Your task to perform on an android device: open app "Flipkart Online Shopping App" Image 0: 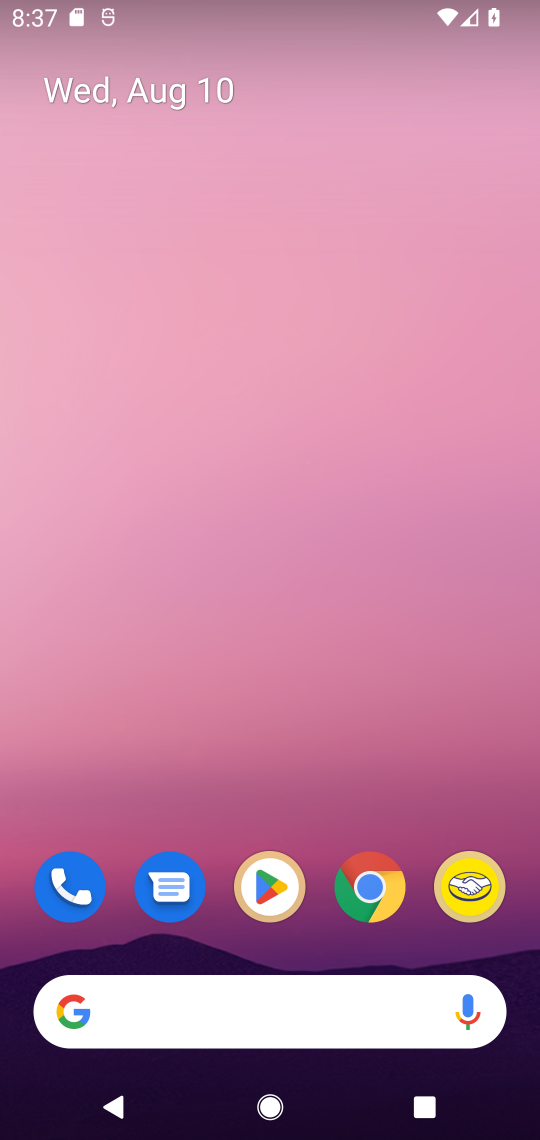
Step 0: drag from (311, 967) to (313, 32)
Your task to perform on an android device: open app "Flipkart Online Shopping App" Image 1: 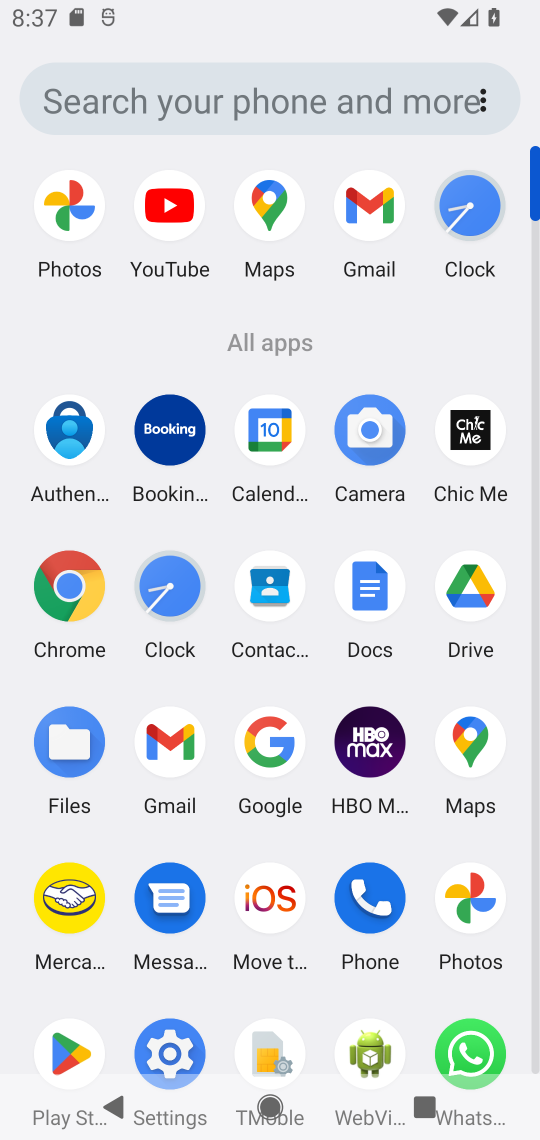
Step 1: click (47, 1059)
Your task to perform on an android device: open app "Flipkart Online Shopping App" Image 2: 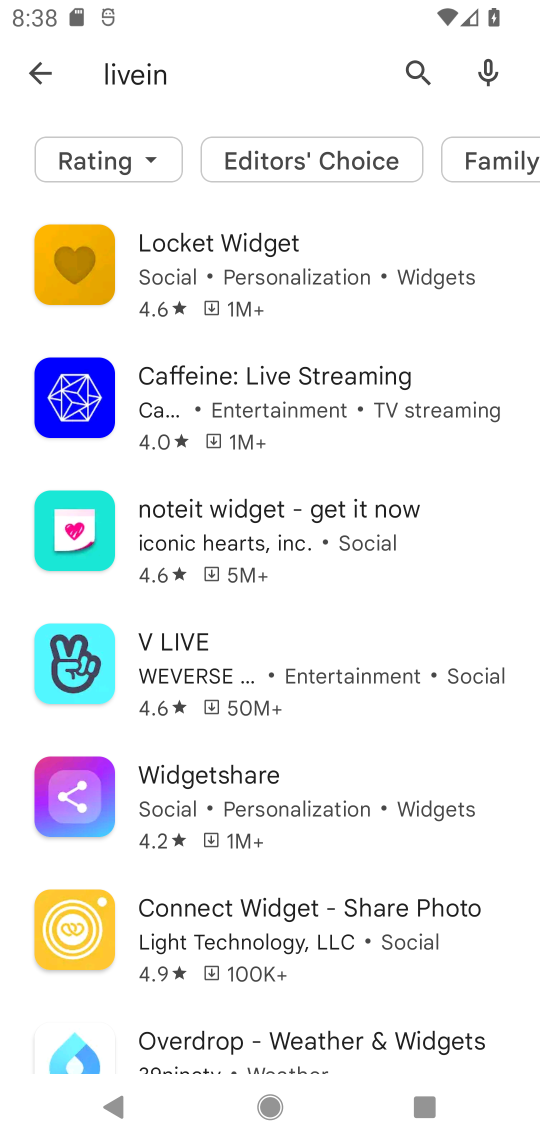
Step 2: click (401, 66)
Your task to perform on an android device: open app "Flipkart Online Shopping App" Image 3: 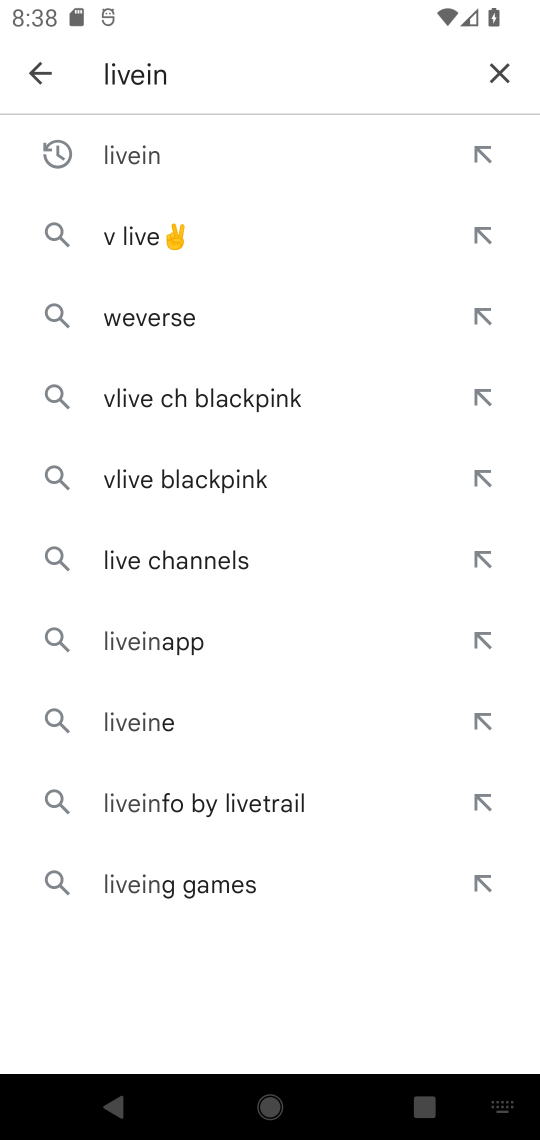
Step 3: click (486, 87)
Your task to perform on an android device: open app "Flipkart Online Shopping App" Image 4: 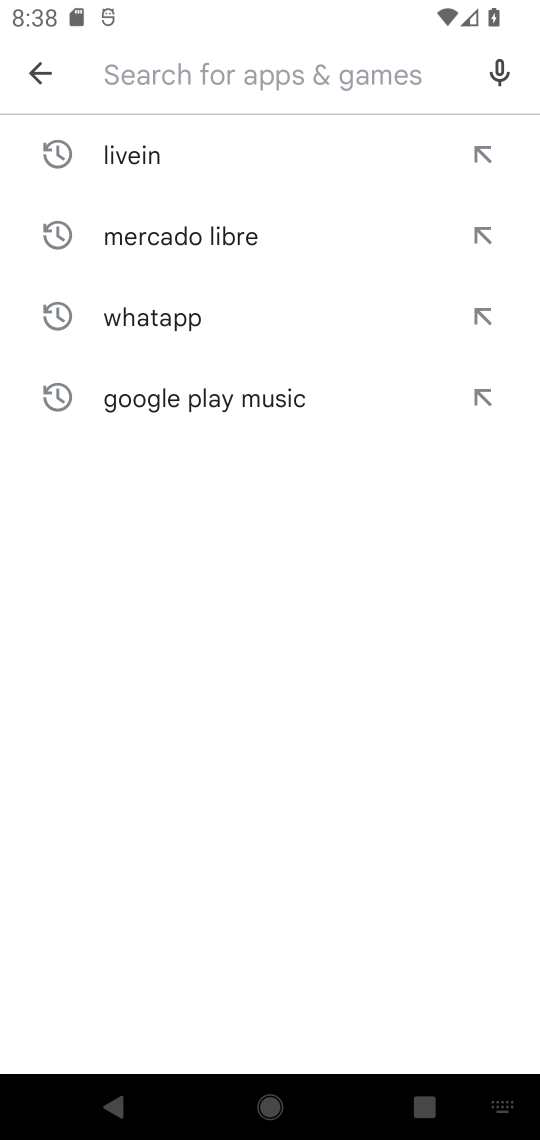
Step 4: type "flipakart"
Your task to perform on an android device: open app "Flipkart Online Shopping App" Image 5: 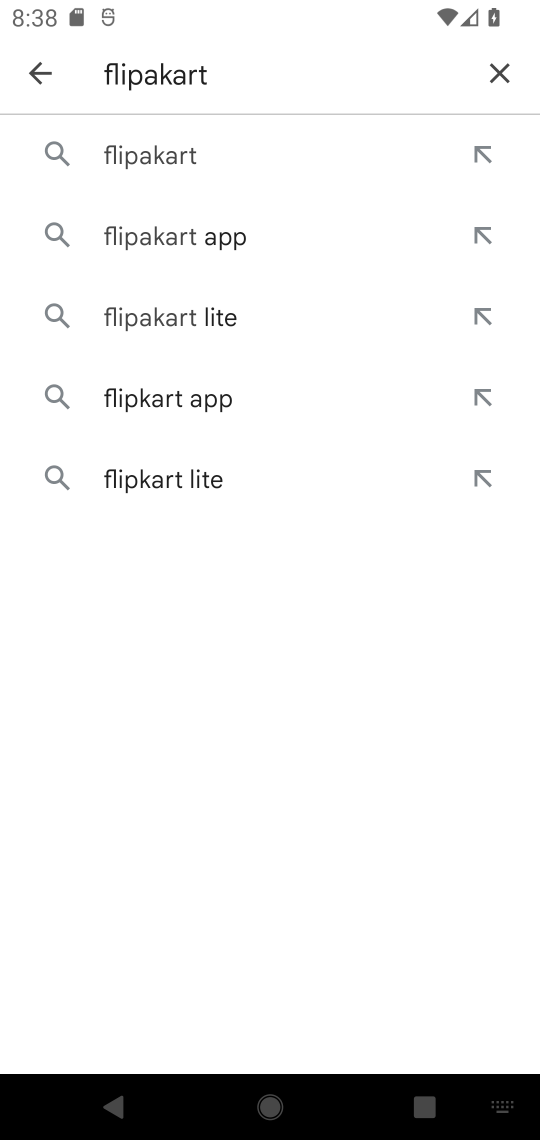
Step 5: click (270, 165)
Your task to perform on an android device: open app "Flipkart Online Shopping App" Image 6: 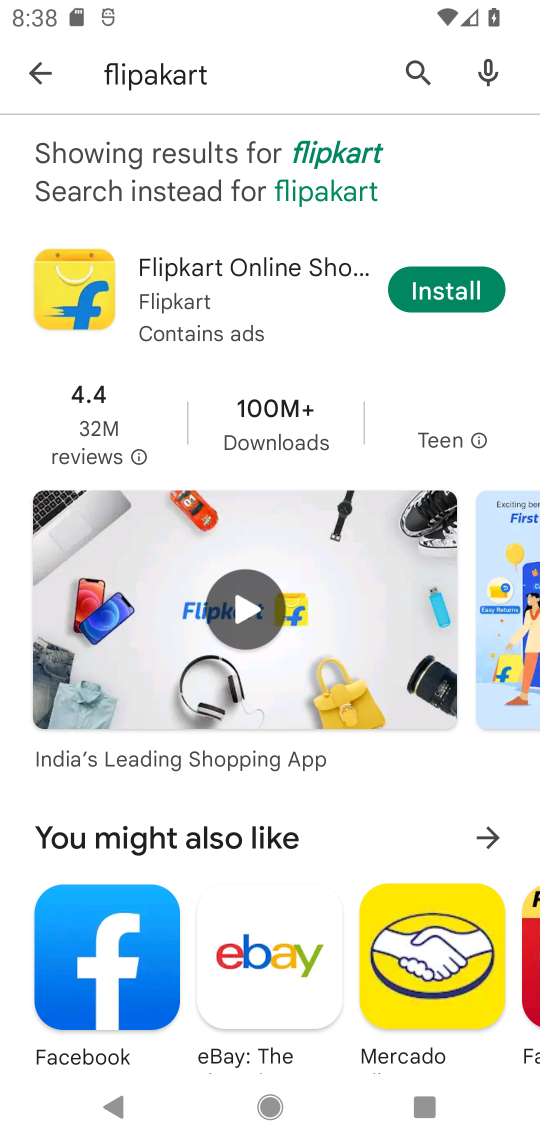
Step 6: click (434, 285)
Your task to perform on an android device: open app "Flipkart Online Shopping App" Image 7: 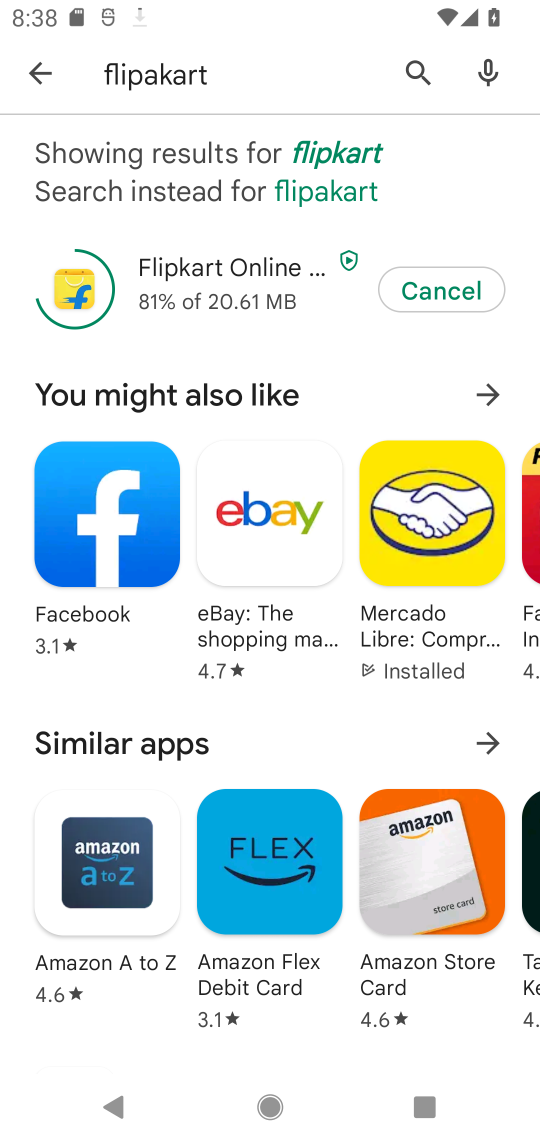
Step 7: task complete